Your task to perform on an android device: Go to display settings Image 0: 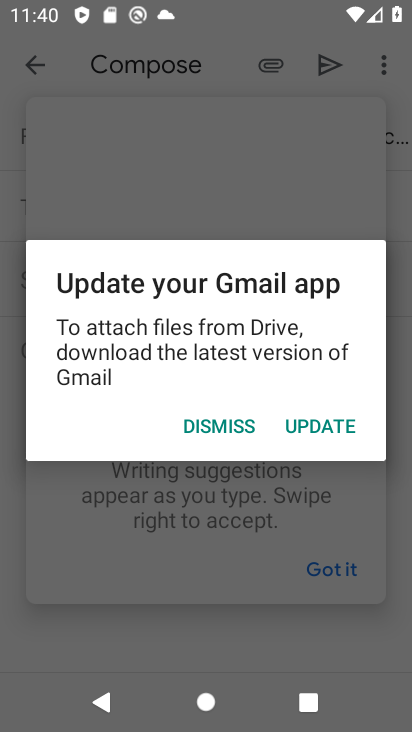
Step 0: press home button
Your task to perform on an android device: Go to display settings Image 1: 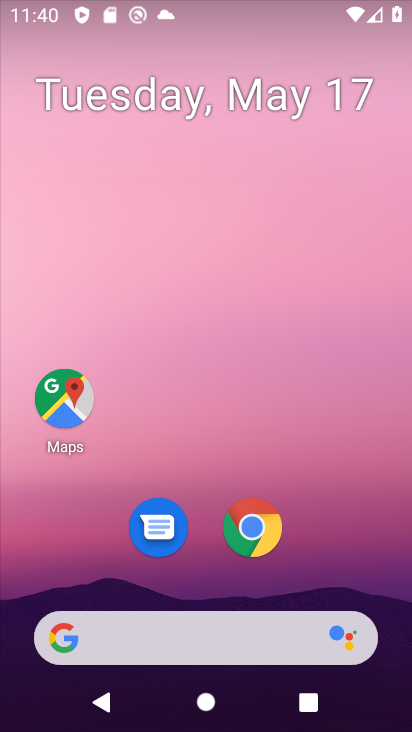
Step 1: drag from (227, 539) to (259, 115)
Your task to perform on an android device: Go to display settings Image 2: 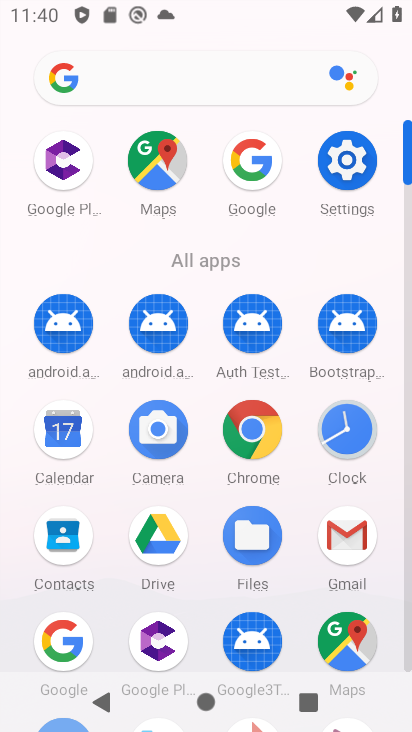
Step 2: click (358, 164)
Your task to perform on an android device: Go to display settings Image 3: 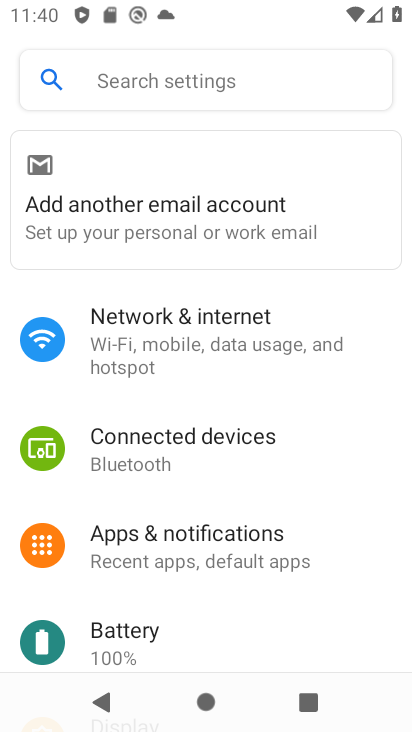
Step 3: drag from (252, 540) to (266, 226)
Your task to perform on an android device: Go to display settings Image 4: 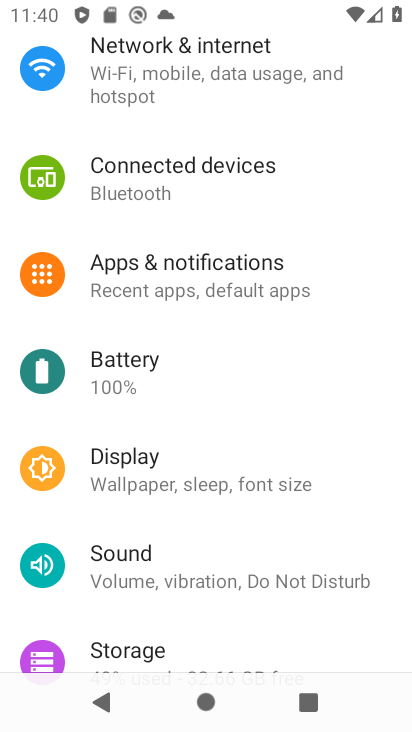
Step 4: drag from (208, 582) to (231, 238)
Your task to perform on an android device: Go to display settings Image 5: 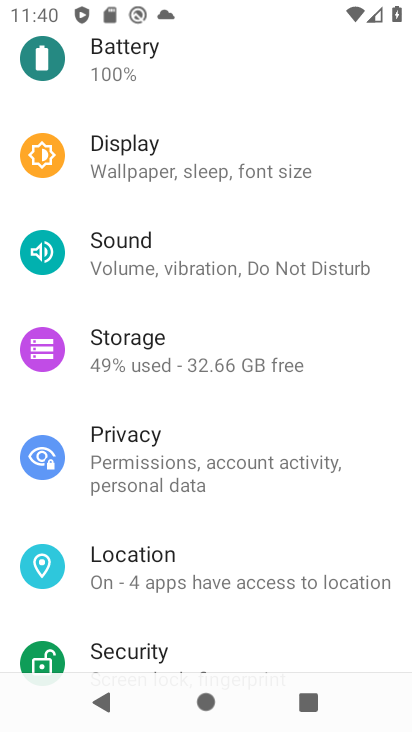
Step 5: drag from (246, 615) to (245, 571)
Your task to perform on an android device: Go to display settings Image 6: 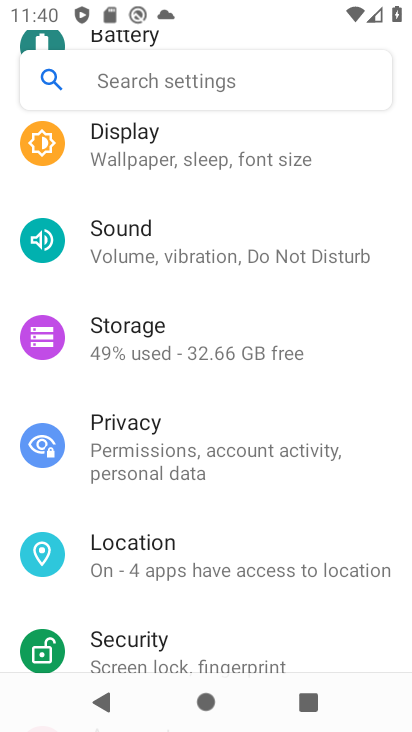
Step 6: drag from (258, 238) to (262, 502)
Your task to perform on an android device: Go to display settings Image 7: 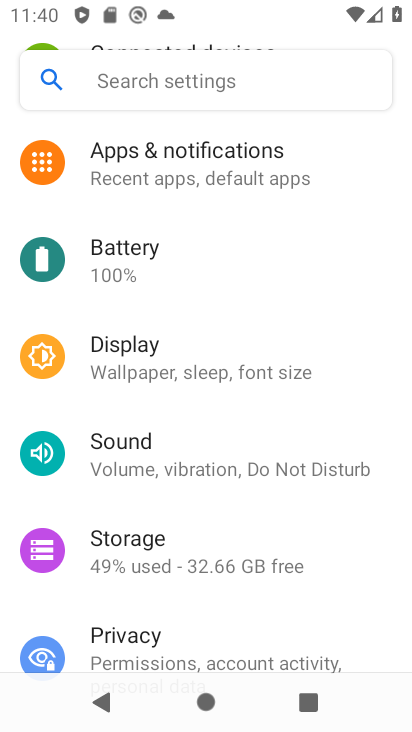
Step 7: click (195, 375)
Your task to perform on an android device: Go to display settings Image 8: 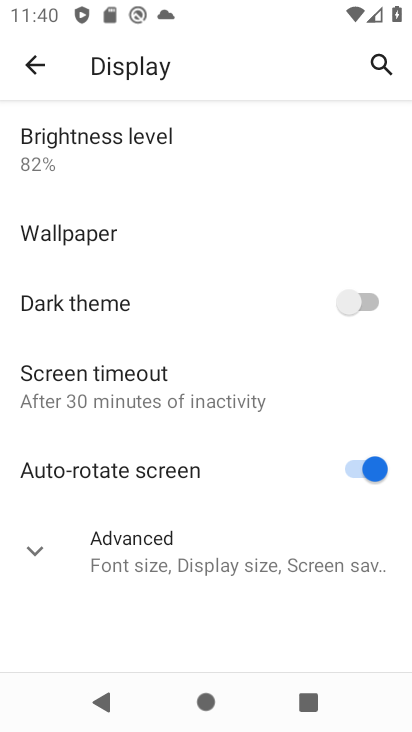
Step 8: task complete